Your task to perform on an android device: Search for pizza restaurants on Maps Image 0: 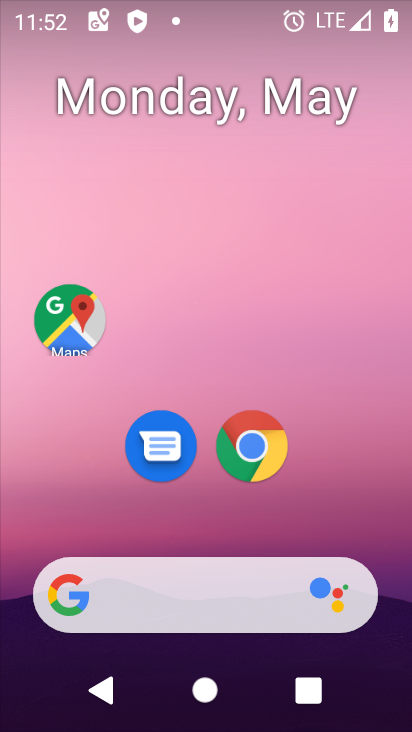
Step 0: click (75, 320)
Your task to perform on an android device: Search for pizza restaurants on Maps Image 1: 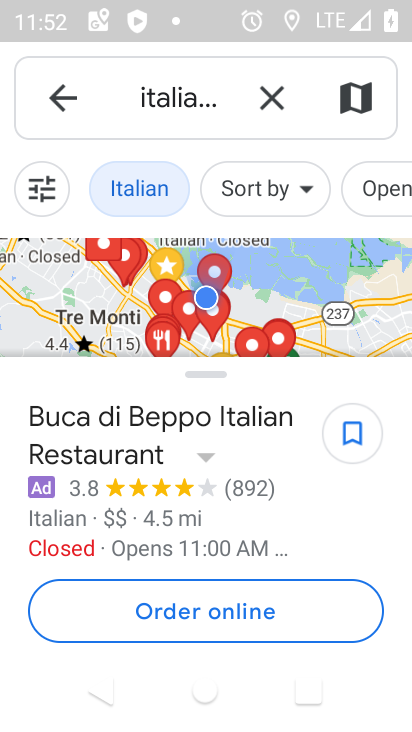
Step 1: click (266, 98)
Your task to perform on an android device: Search for pizza restaurants on Maps Image 2: 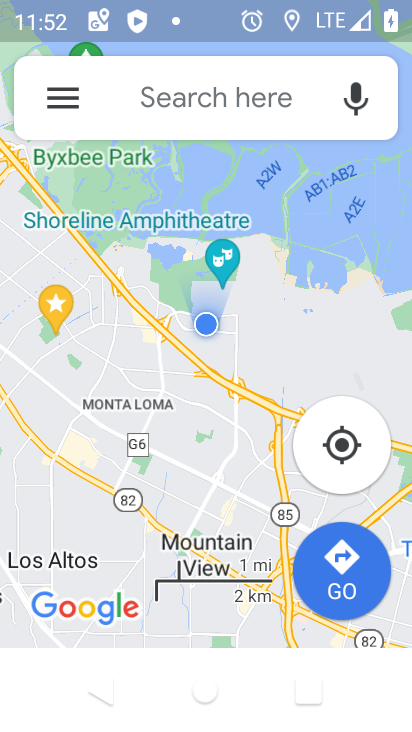
Step 2: click (174, 93)
Your task to perform on an android device: Search for pizza restaurants on Maps Image 3: 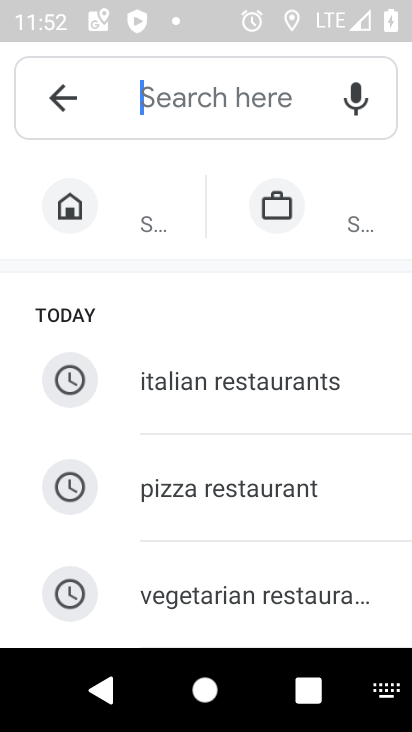
Step 3: click (209, 477)
Your task to perform on an android device: Search for pizza restaurants on Maps Image 4: 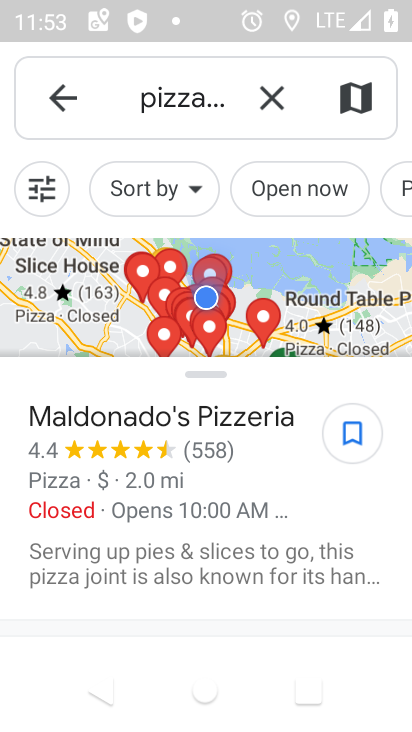
Step 4: task complete